Your task to perform on an android device: Open maps Image 0: 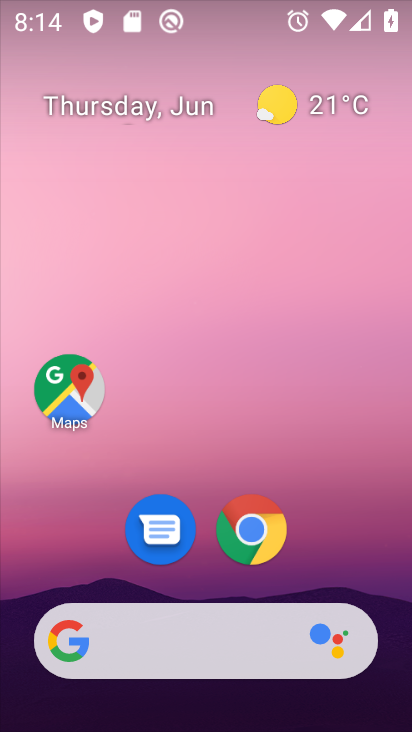
Step 0: click (83, 406)
Your task to perform on an android device: Open maps Image 1: 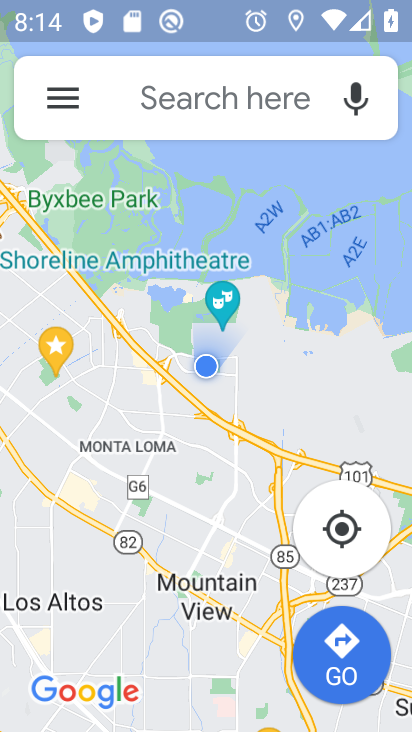
Step 1: task complete